Your task to perform on an android device: change timer sound Image 0: 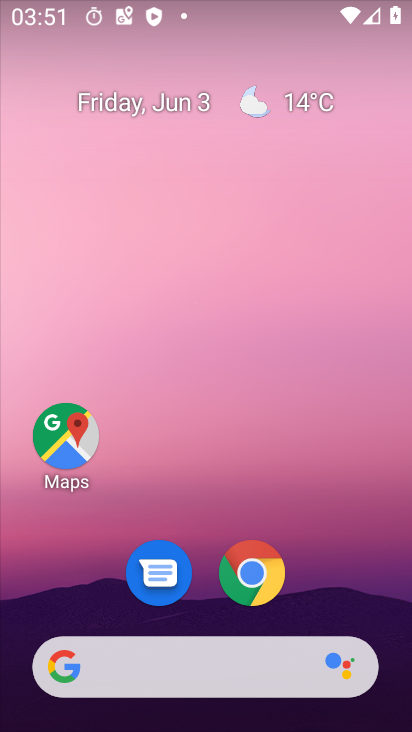
Step 0: drag from (204, 685) to (296, 70)
Your task to perform on an android device: change timer sound Image 1: 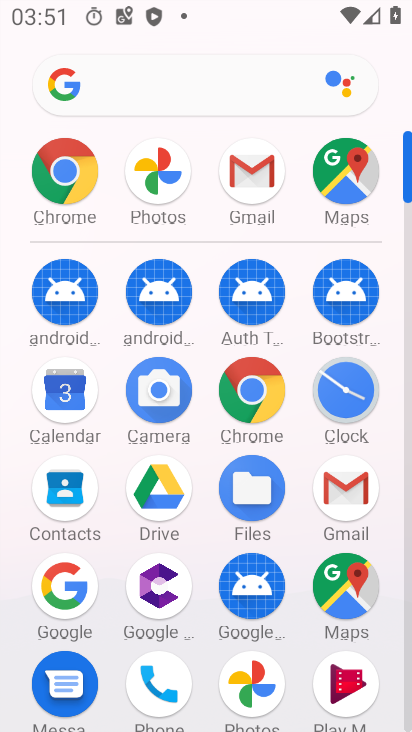
Step 1: drag from (280, 633) to (411, 260)
Your task to perform on an android device: change timer sound Image 2: 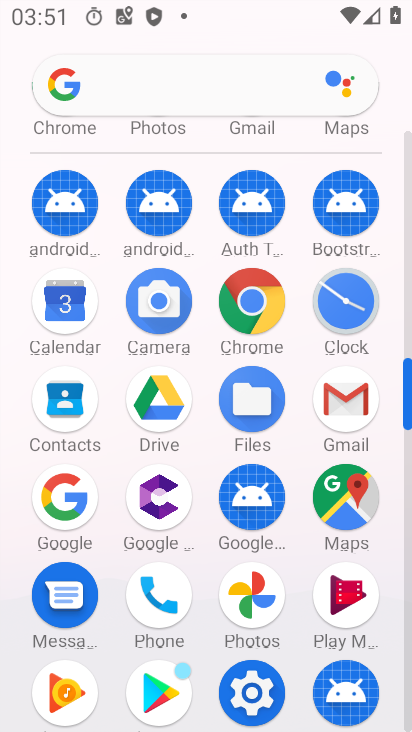
Step 2: click (245, 707)
Your task to perform on an android device: change timer sound Image 3: 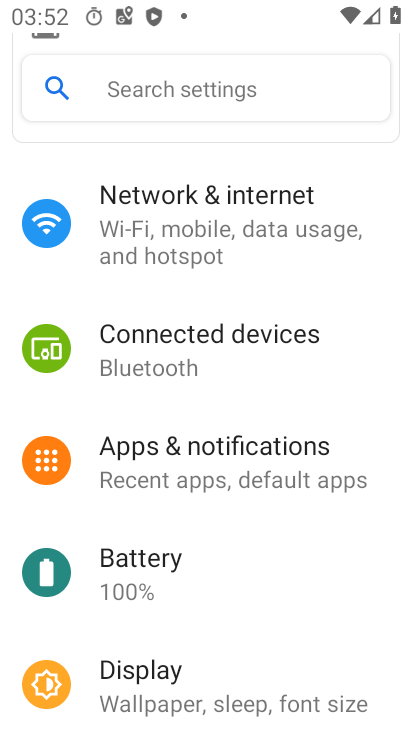
Step 3: drag from (330, 611) to (371, 189)
Your task to perform on an android device: change timer sound Image 4: 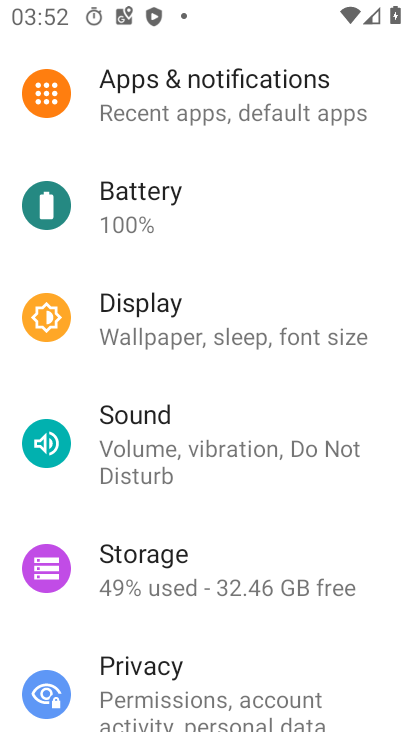
Step 4: press home button
Your task to perform on an android device: change timer sound Image 5: 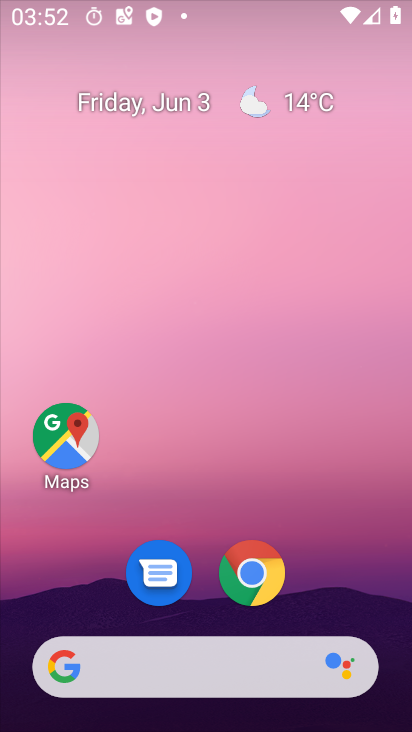
Step 5: drag from (181, 670) to (332, 41)
Your task to perform on an android device: change timer sound Image 6: 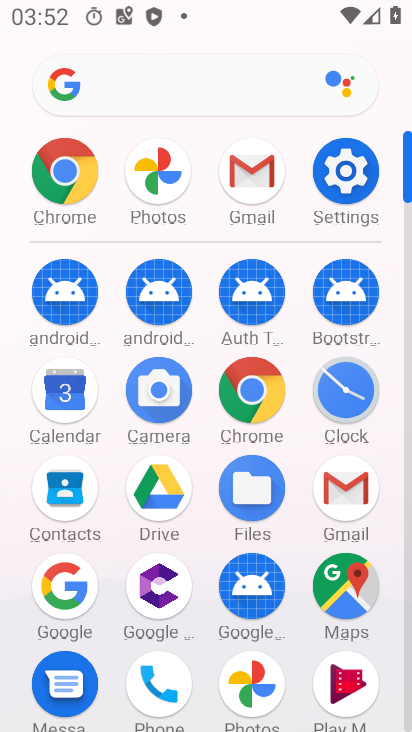
Step 6: click (334, 372)
Your task to perform on an android device: change timer sound Image 7: 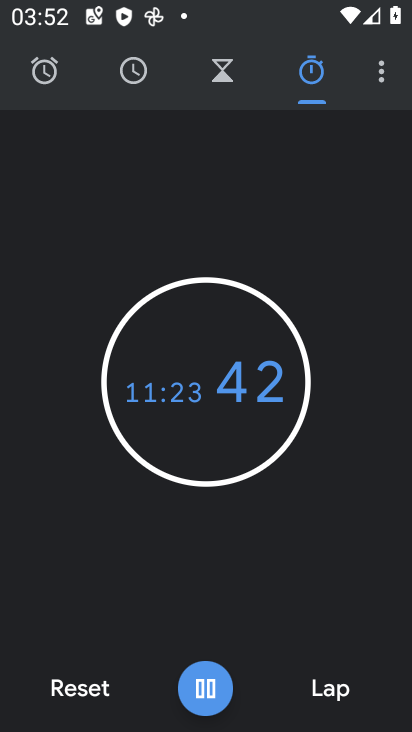
Step 7: click (381, 77)
Your task to perform on an android device: change timer sound Image 8: 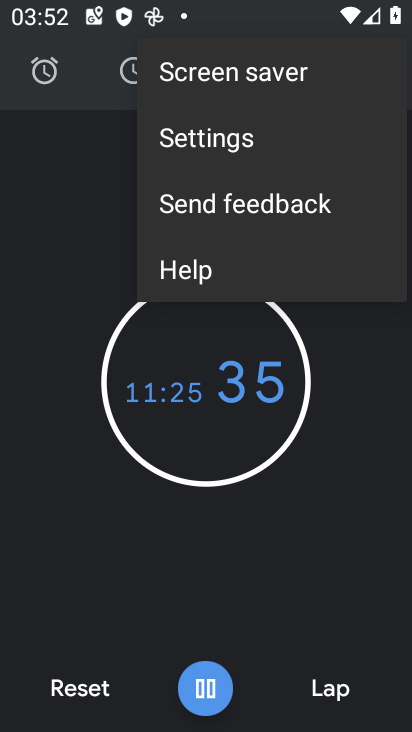
Step 8: click (238, 140)
Your task to perform on an android device: change timer sound Image 9: 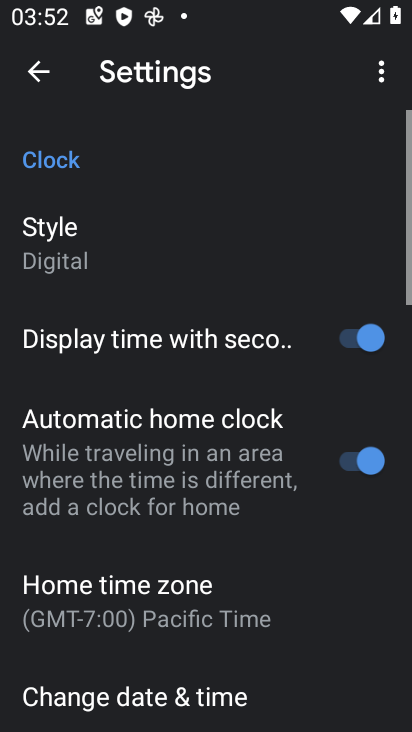
Step 9: drag from (256, 599) to (271, 74)
Your task to perform on an android device: change timer sound Image 10: 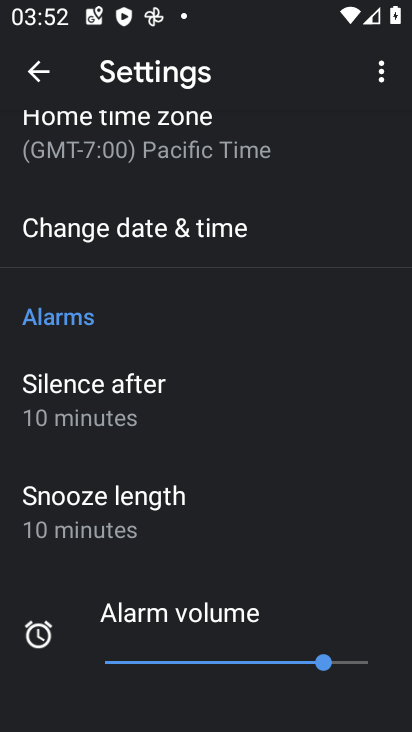
Step 10: drag from (265, 649) to (287, 107)
Your task to perform on an android device: change timer sound Image 11: 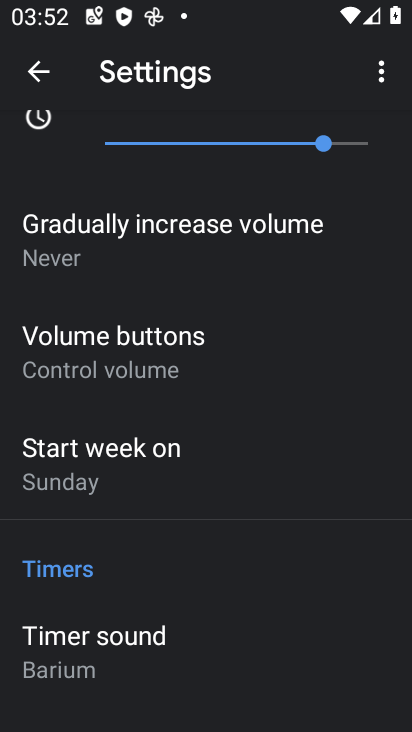
Step 11: drag from (229, 686) to (226, 260)
Your task to perform on an android device: change timer sound Image 12: 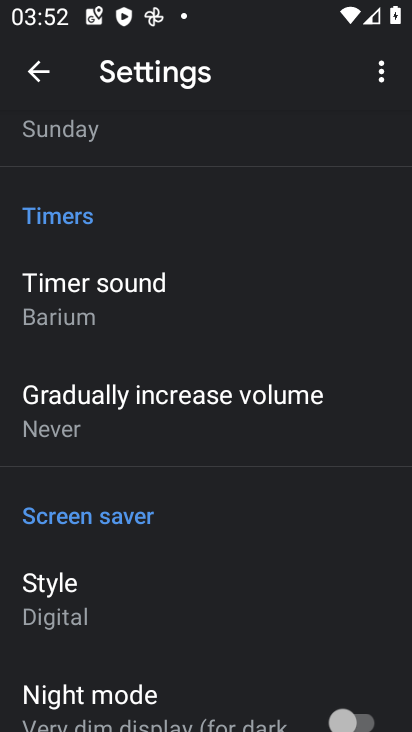
Step 12: drag from (211, 658) to (231, 392)
Your task to perform on an android device: change timer sound Image 13: 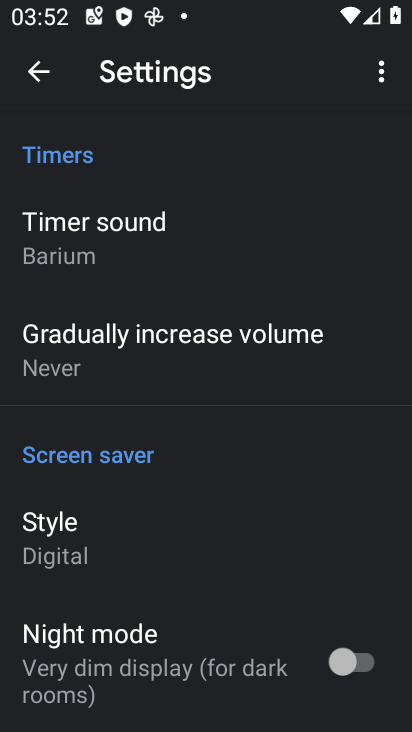
Step 13: click (162, 226)
Your task to perform on an android device: change timer sound Image 14: 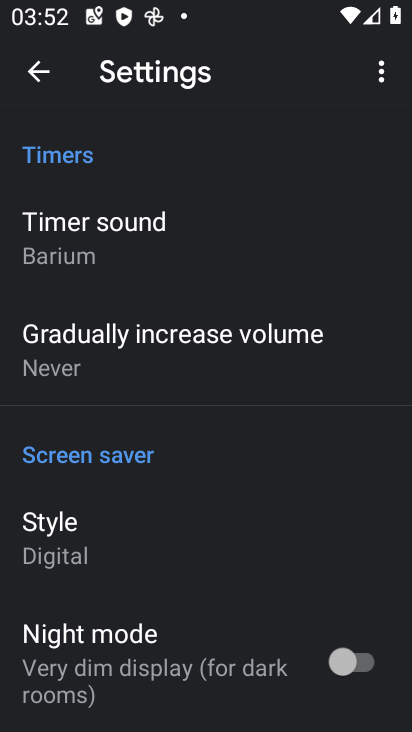
Step 14: click (162, 226)
Your task to perform on an android device: change timer sound Image 15: 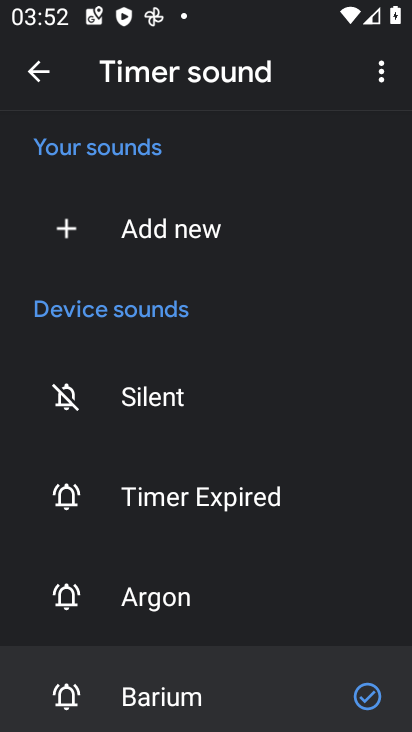
Step 15: click (199, 612)
Your task to perform on an android device: change timer sound Image 16: 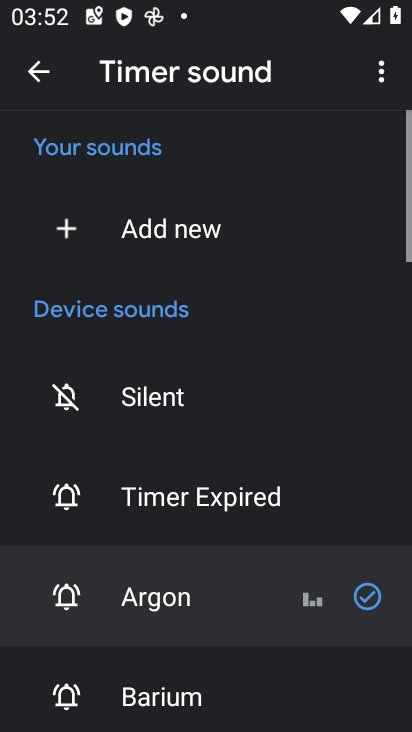
Step 16: task complete